Your task to perform on an android device: Go to sound settings Image 0: 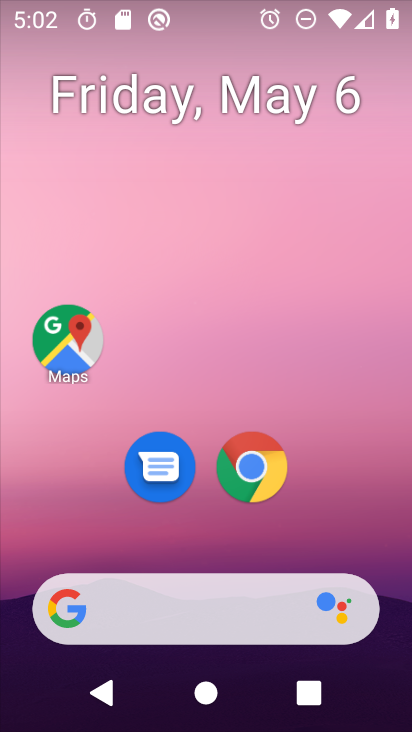
Step 0: click (291, 235)
Your task to perform on an android device: Go to sound settings Image 1: 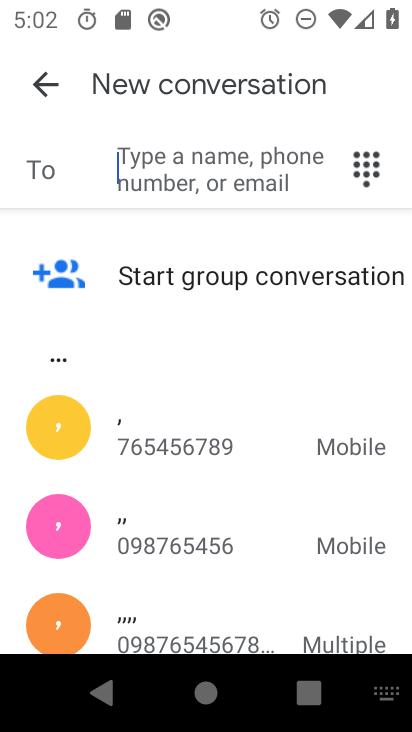
Step 1: press home button
Your task to perform on an android device: Go to sound settings Image 2: 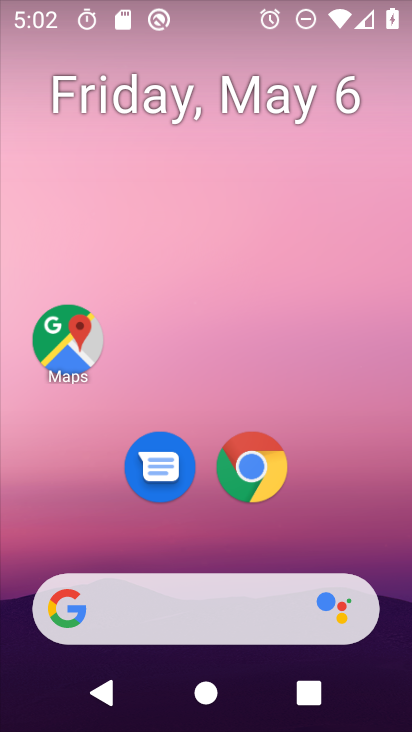
Step 2: drag from (332, 573) to (366, 273)
Your task to perform on an android device: Go to sound settings Image 3: 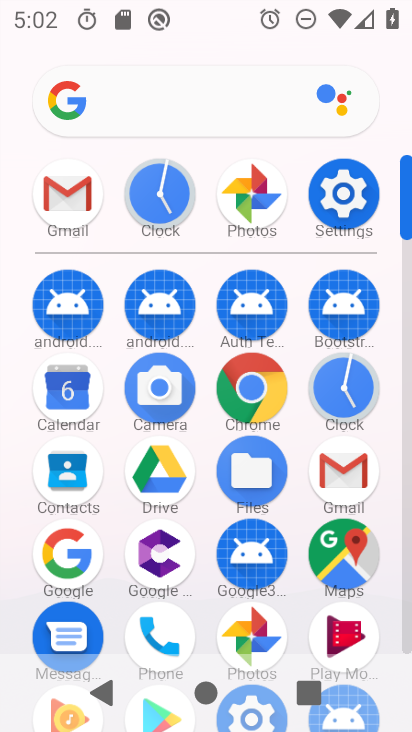
Step 3: click (326, 224)
Your task to perform on an android device: Go to sound settings Image 4: 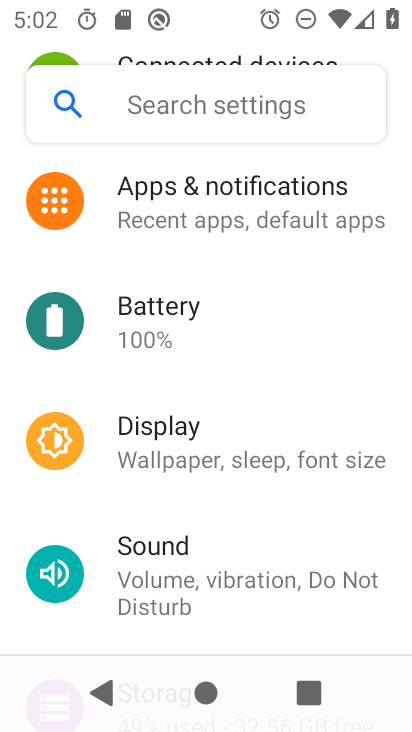
Step 4: drag from (202, 613) to (227, 321)
Your task to perform on an android device: Go to sound settings Image 5: 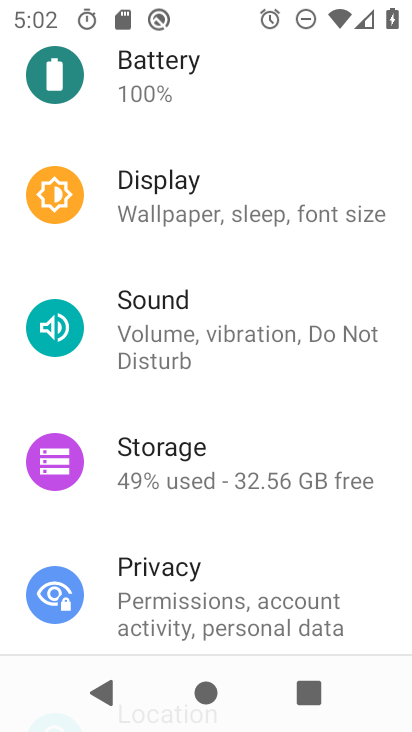
Step 5: click (198, 350)
Your task to perform on an android device: Go to sound settings Image 6: 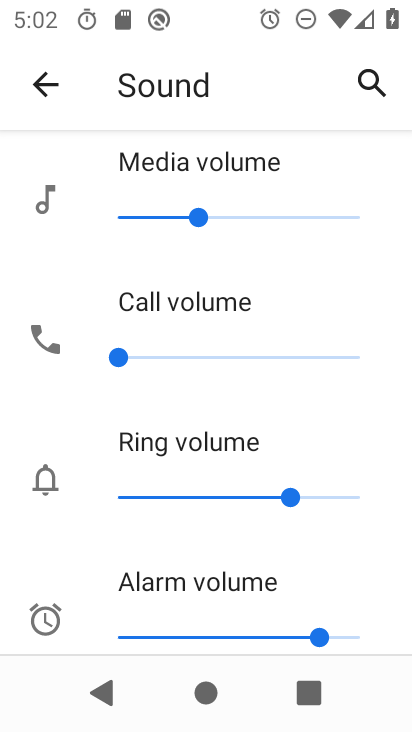
Step 6: task complete